Your task to perform on an android device: Go to internet settings Image 0: 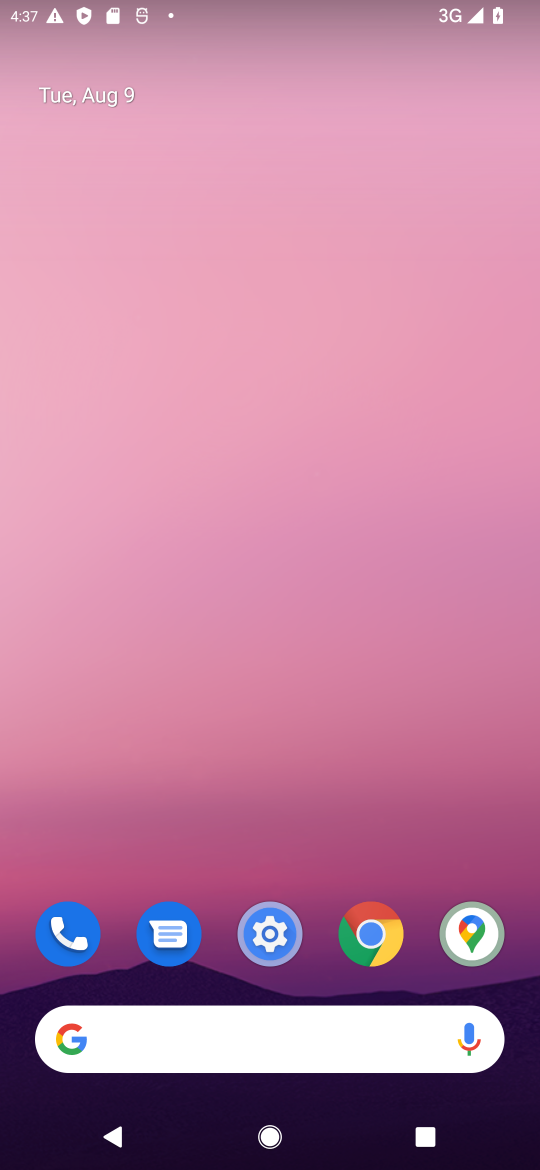
Step 0: click (274, 954)
Your task to perform on an android device: Go to internet settings Image 1: 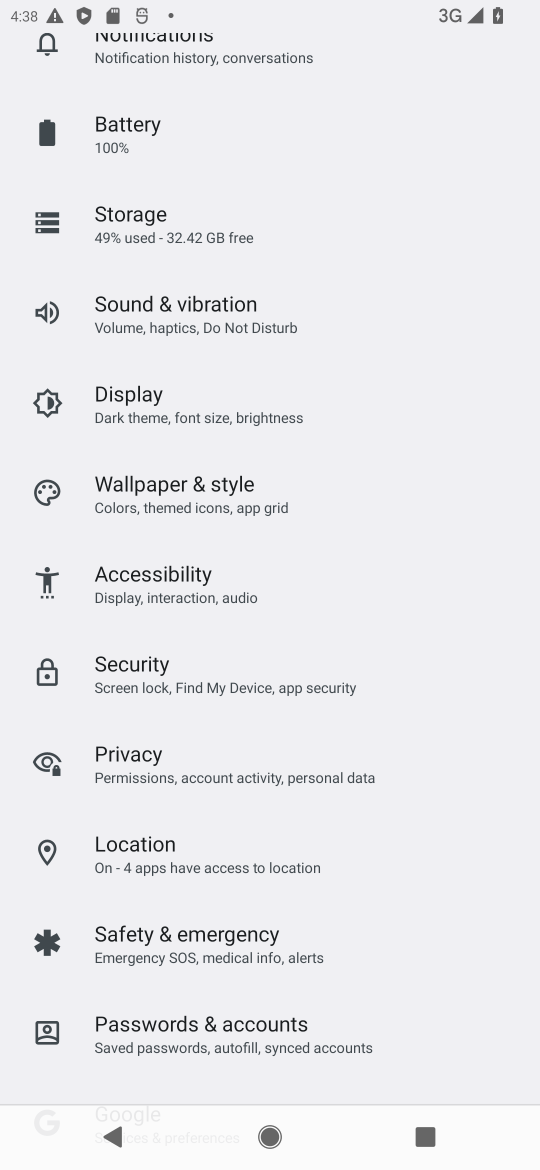
Step 1: task complete